Your task to perform on an android device: toggle airplane mode Image 0: 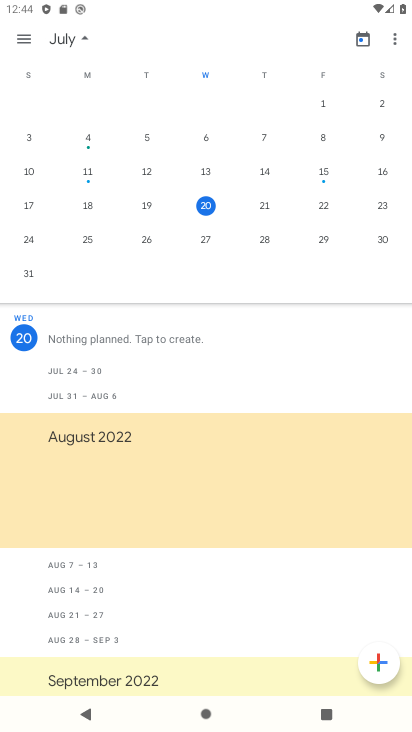
Step 0: press home button
Your task to perform on an android device: toggle airplane mode Image 1: 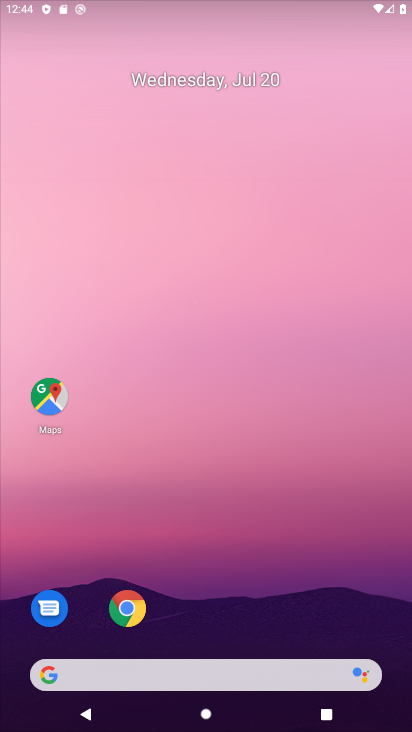
Step 1: drag from (190, 652) to (224, 107)
Your task to perform on an android device: toggle airplane mode Image 2: 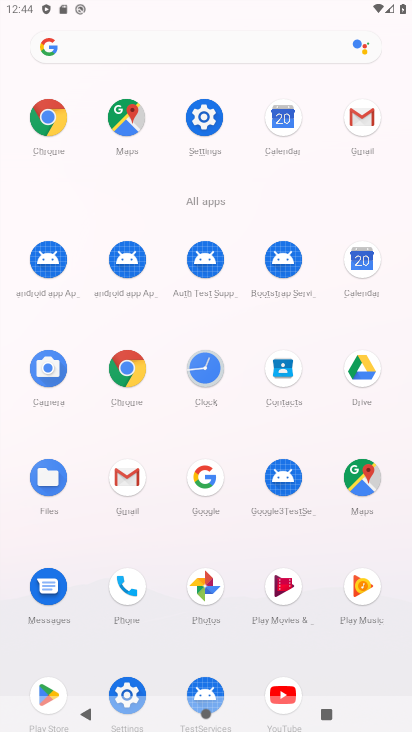
Step 2: click (129, 690)
Your task to perform on an android device: toggle airplane mode Image 3: 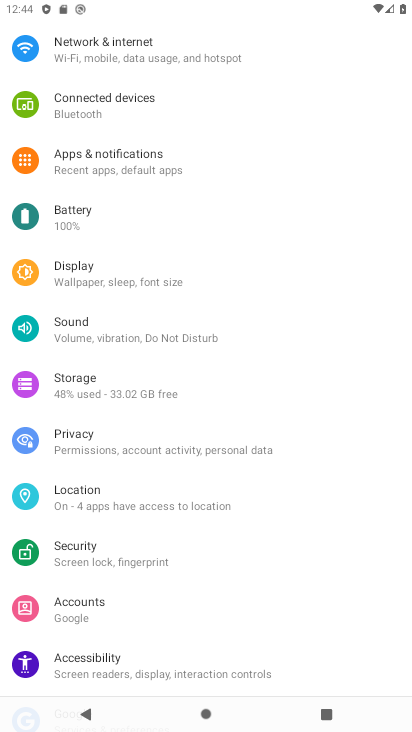
Step 3: click (165, 45)
Your task to perform on an android device: toggle airplane mode Image 4: 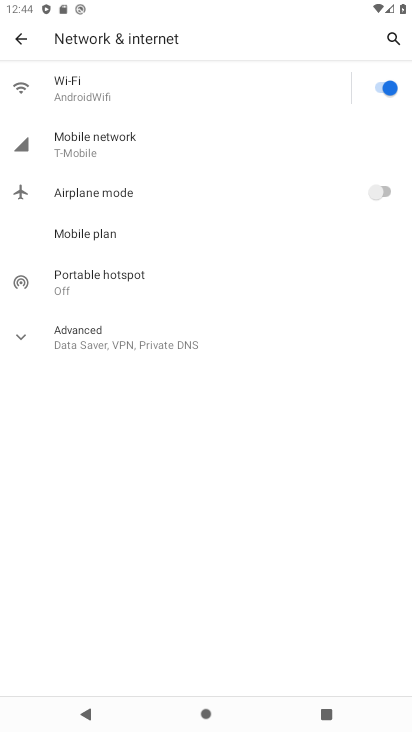
Step 4: click (387, 180)
Your task to perform on an android device: toggle airplane mode Image 5: 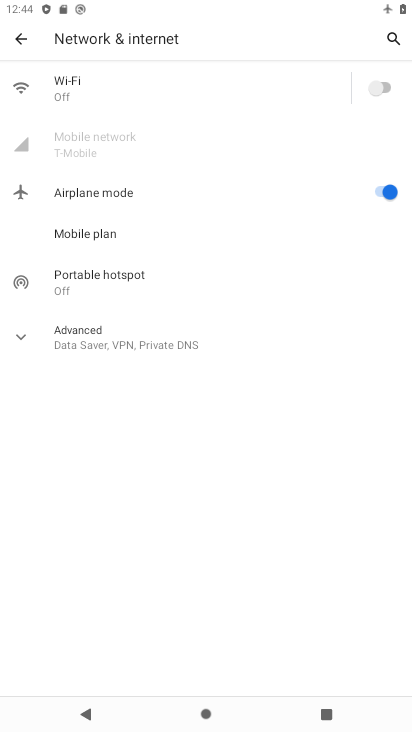
Step 5: task complete